Your task to perform on an android device: turn off airplane mode Image 0: 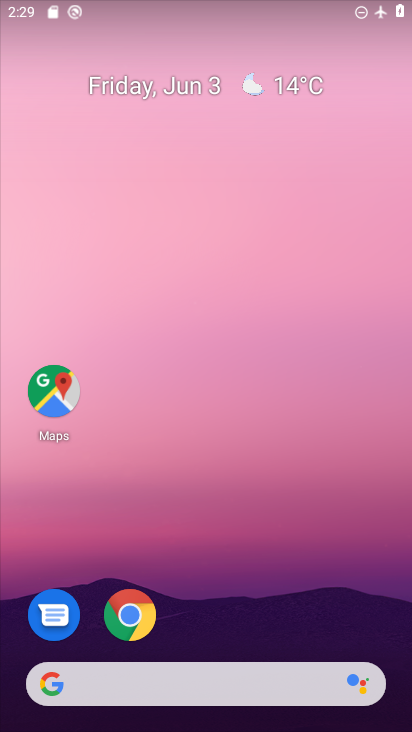
Step 0: click (70, 1)
Your task to perform on an android device: turn off airplane mode Image 1: 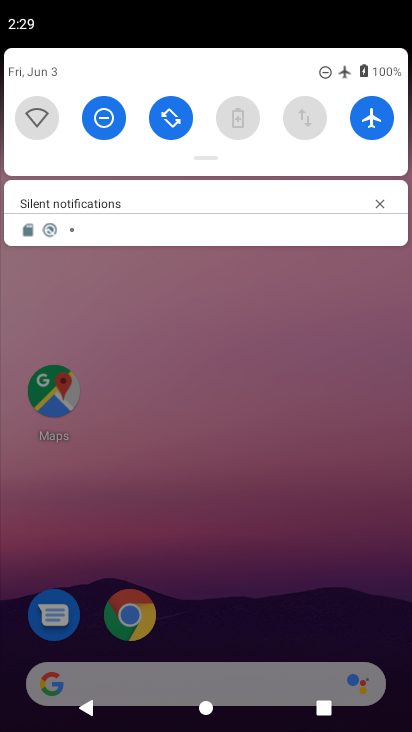
Step 1: drag from (213, 595) to (218, 46)
Your task to perform on an android device: turn off airplane mode Image 2: 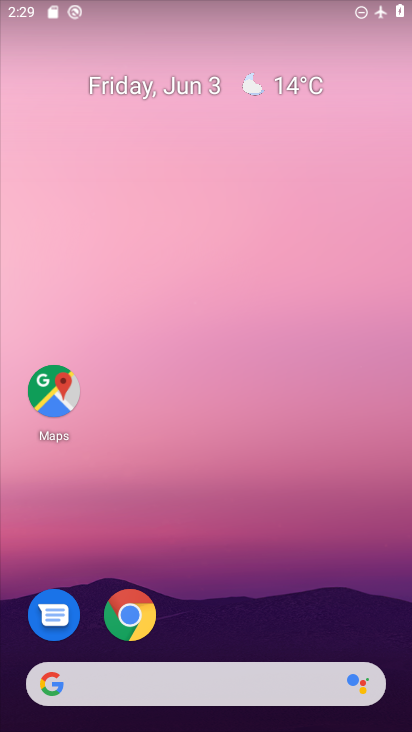
Step 2: drag from (194, 401) to (193, 117)
Your task to perform on an android device: turn off airplane mode Image 3: 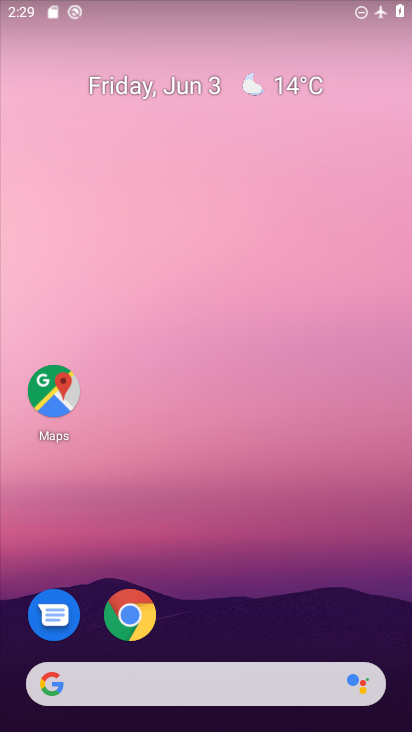
Step 3: drag from (189, 630) to (87, 4)
Your task to perform on an android device: turn off airplane mode Image 4: 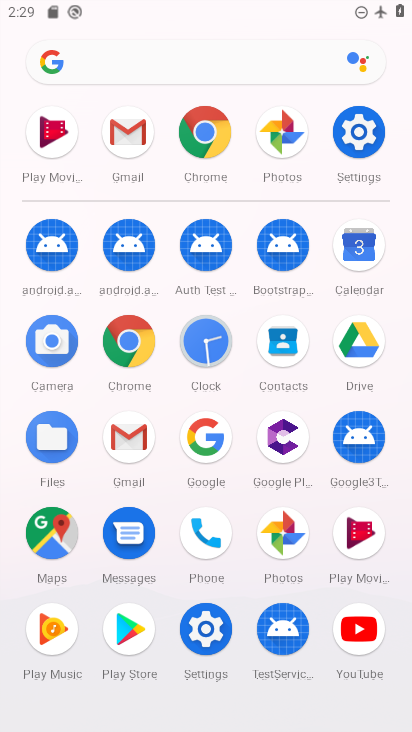
Step 4: click (349, 134)
Your task to perform on an android device: turn off airplane mode Image 5: 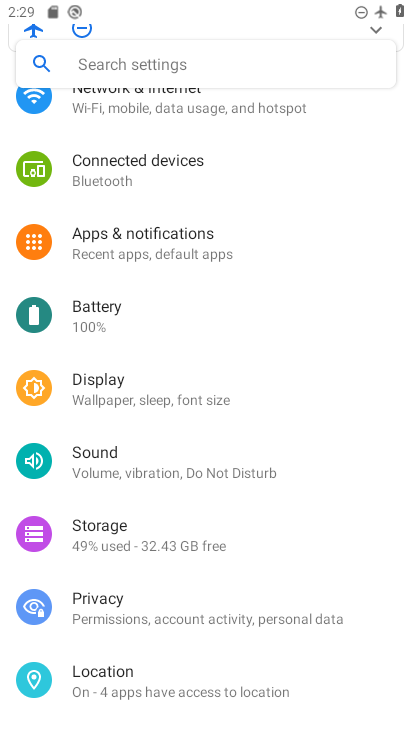
Step 5: drag from (158, 325) to (231, 720)
Your task to perform on an android device: turn off airplane mode Image 6: 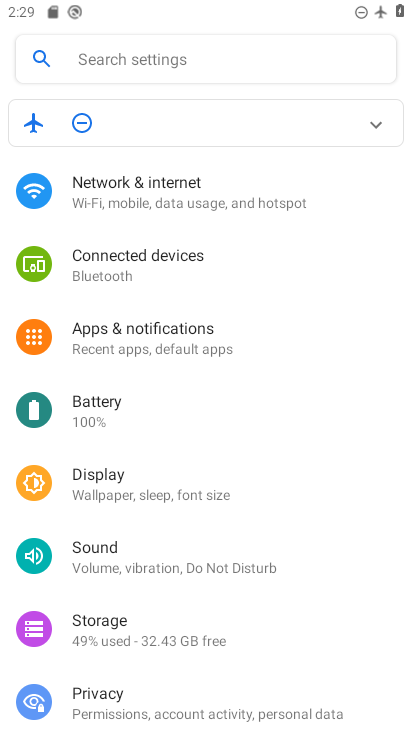
Step 6: click (155, 215)
Your task to perform on an android device: turn off airplane mode Image 7: 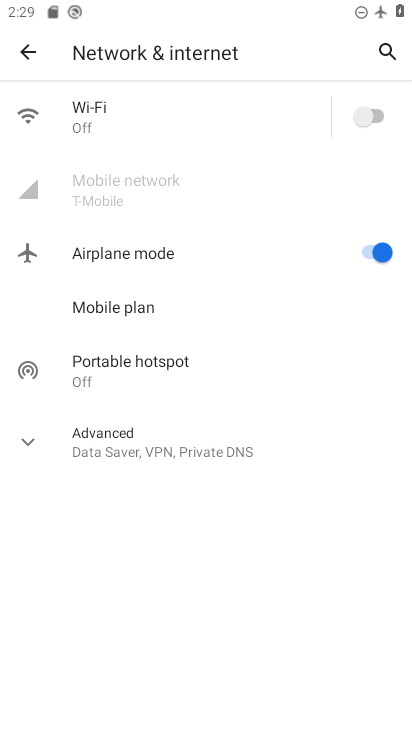
Step 7: click (367, 261)
Your task to perform on an android device: turn off airplane mode Image 8: 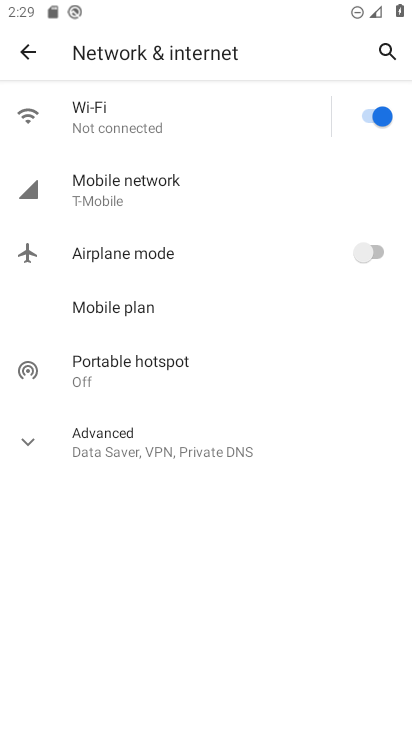
Step 8: task complete